Your task to perform on an android device: What's the weather? Image 0: 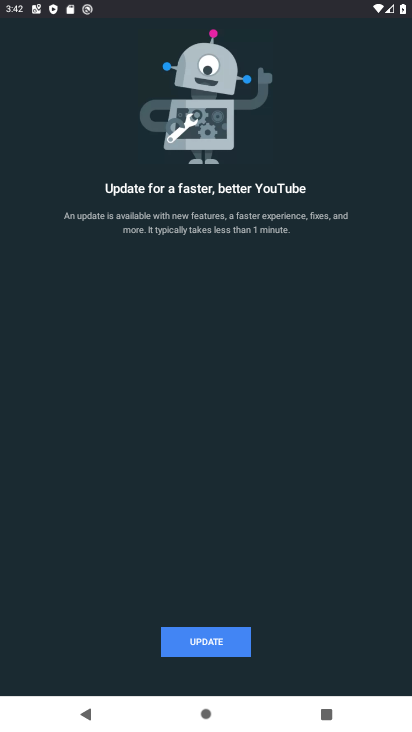
Step 0: press home button
Your task to perform on an android device: What's the weather? Image 1: 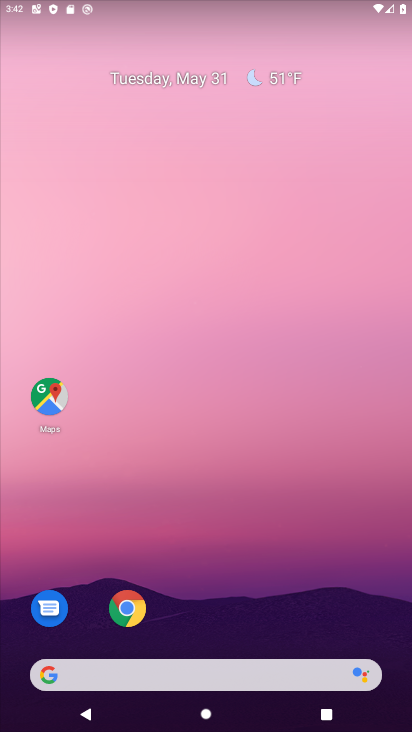
Step 1: drag from (245, 665) to (203, 249)
Your task to perform on an android device: What's the weather? Image 2: 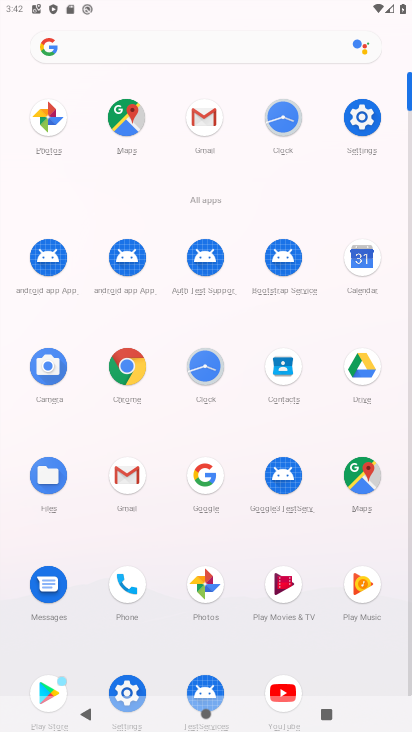
Step 2: click (207, 473)
Your task to perform on an android device: What's the weather? Image 3: 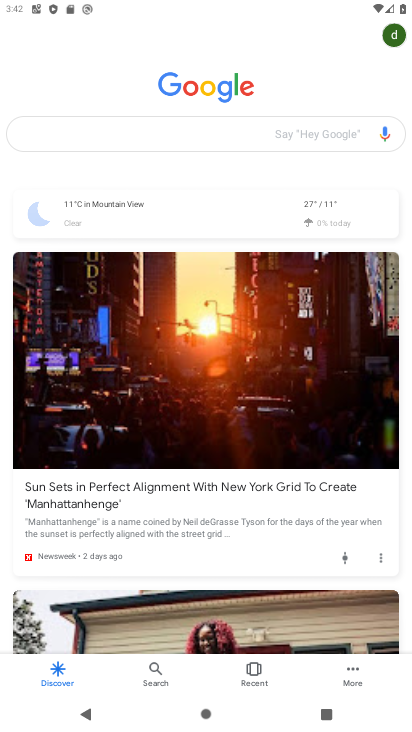
Step 3: click (182, 209)
Your task to perform on an android device: What's the weather? Image 4: 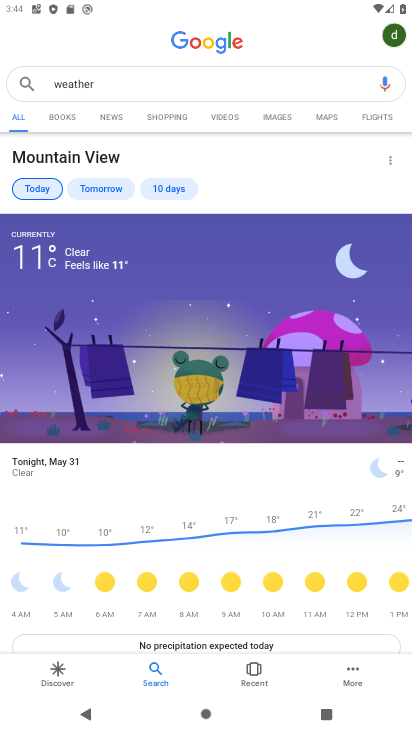
Step 4: task complete